Your task to perform on an android device: check android version Image 0: 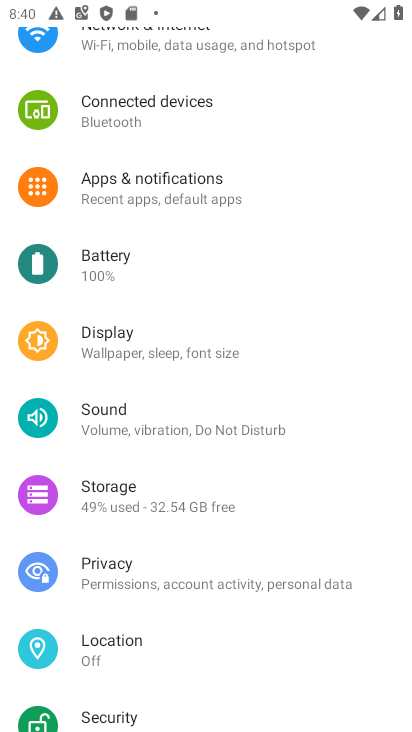
Step 0: drag from (158, 638) to (145, 164)
Your task to perform on an android device: check android version Image 1: 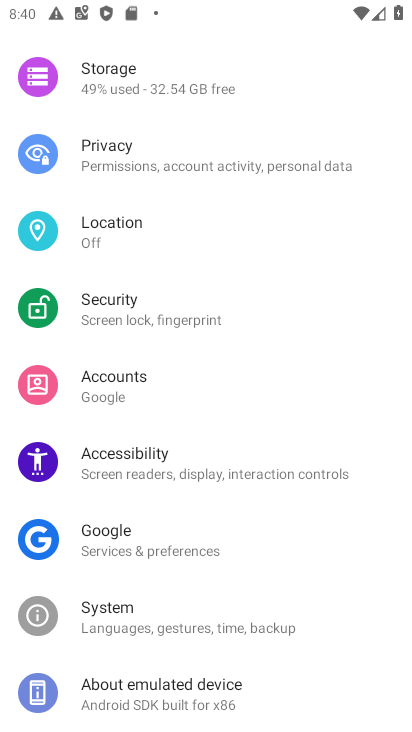
Step 1: drag from (107, 667) to (107, 279)
Your task to perform on an android device: check android version Image 2: 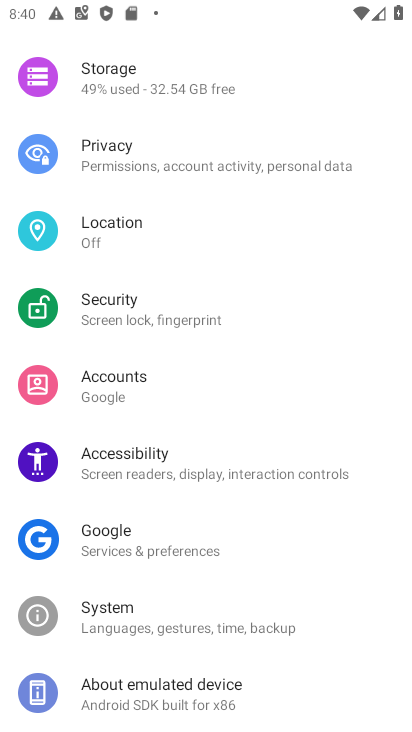
Step 2: click (128, 698)
Your task to perform on an android device: check android version Image 3: 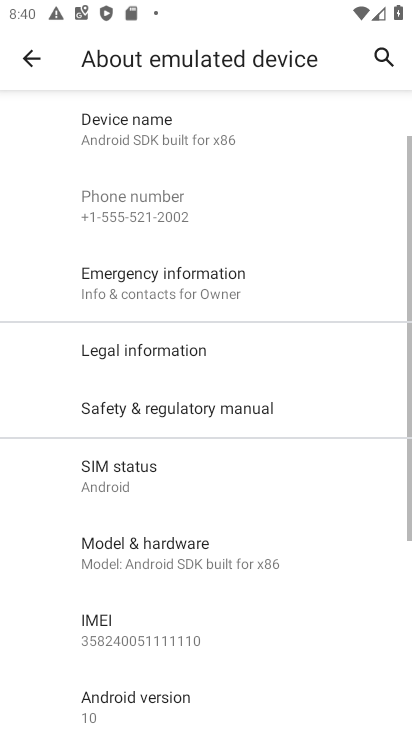
Step 3: click (141, 697)
Your task to perform on an android device: check android version Image 4: 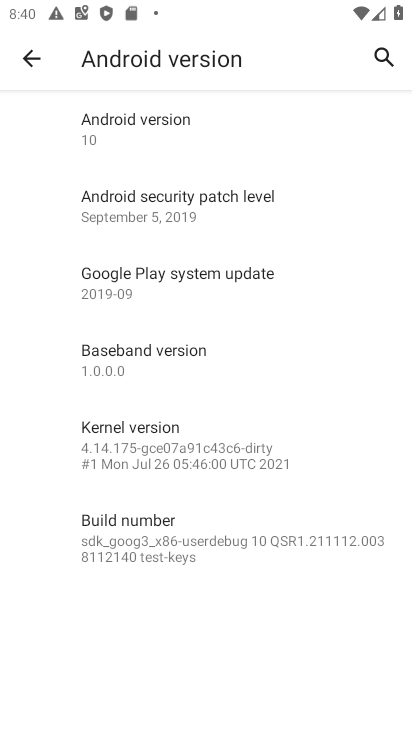
Step 4: task complete